Your task to perform on an android device: change your default location settings in chrome Image 0: 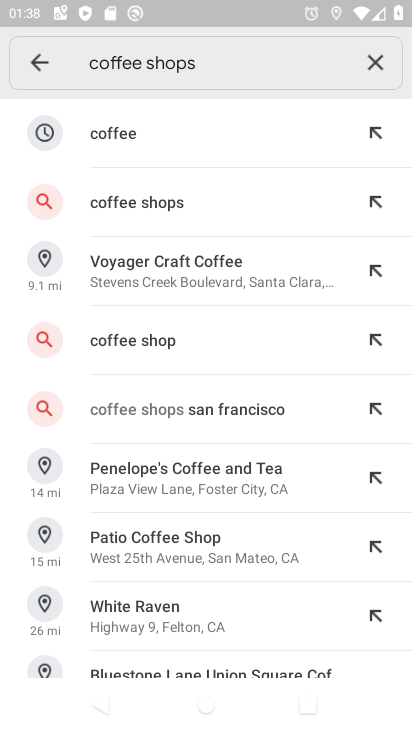
Step 0: press home button
Your task to perform on an android device: change your default location settings in chrome Image 1: 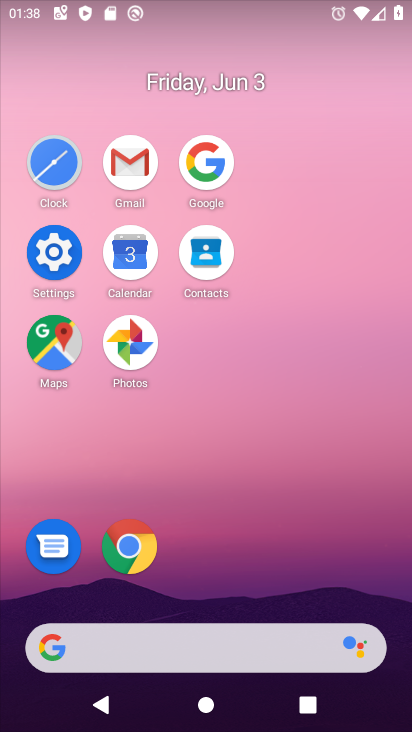
Step 1: click (126, 531)
Your task to perform on an android device: change your default location settings in chrome Image 2: 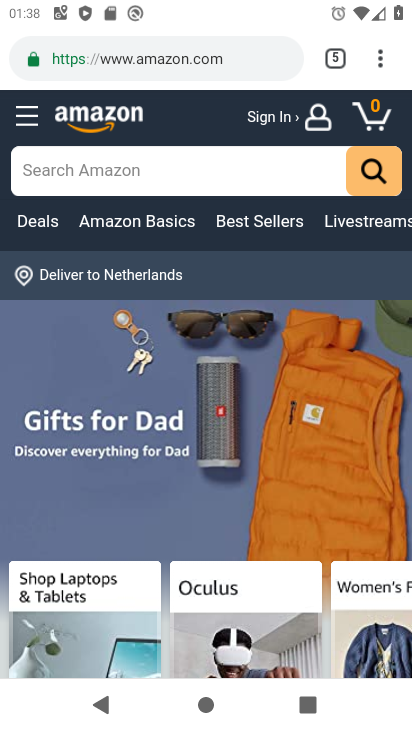
Step 2: click (386, 65)
Your task to perform on an android device: change your default location settings in chrome Image 3: 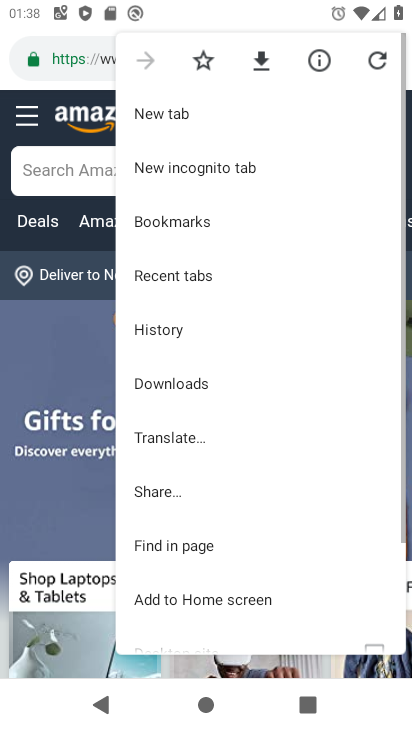
Step 3: drag from (209, 436) to (256, 91)
Your task to perform on an android device: change your default location settings in chrome Image 4: 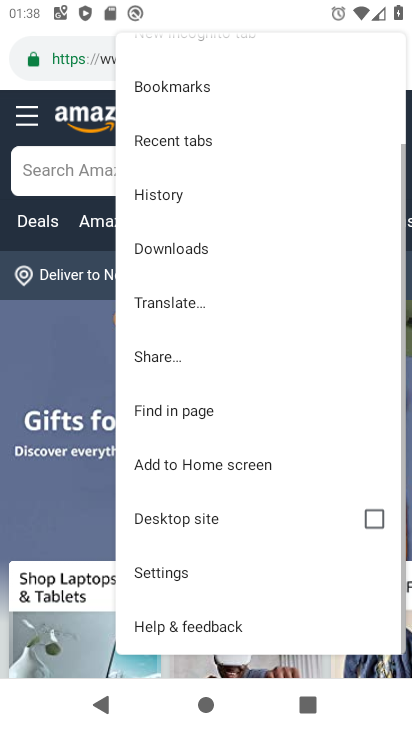
Step 4: click (184, 561)
Your task to perform on an android device: change your default location settings in chrome Image 5: 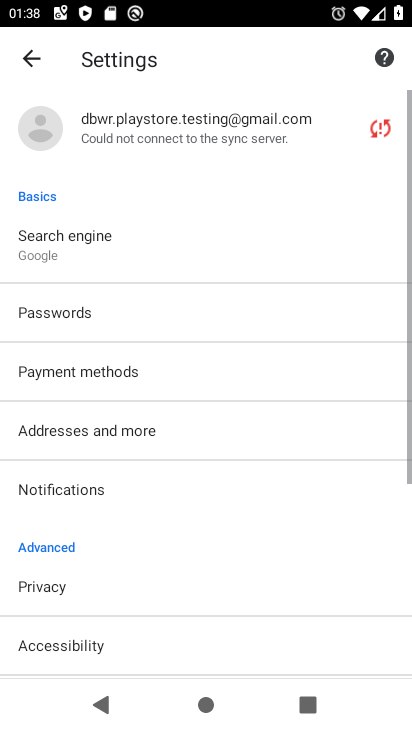
Step 5: drag from (185, 561) to (253, 156)
Your task to perform on an android device: change your default location settings in chrome Image 6: 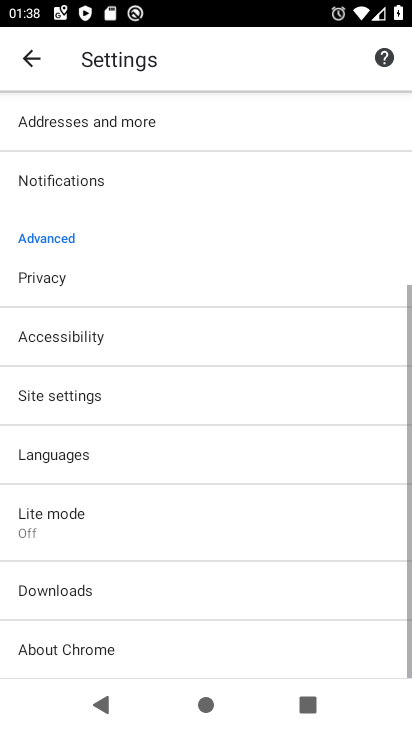
Step 6: drag from (118, 618) to (179, 222)
Your task to perform on an android device: change your default location settings in chrome Image 7: 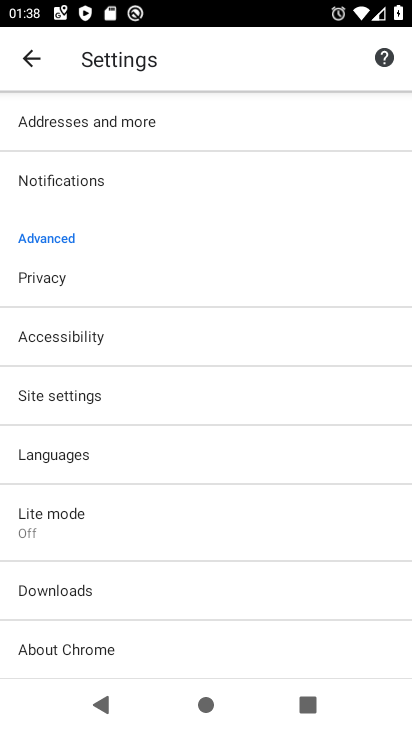
Step 7: click (131, 395)
Your task to perform on an android device: change your default location settings in chrome Image 8: 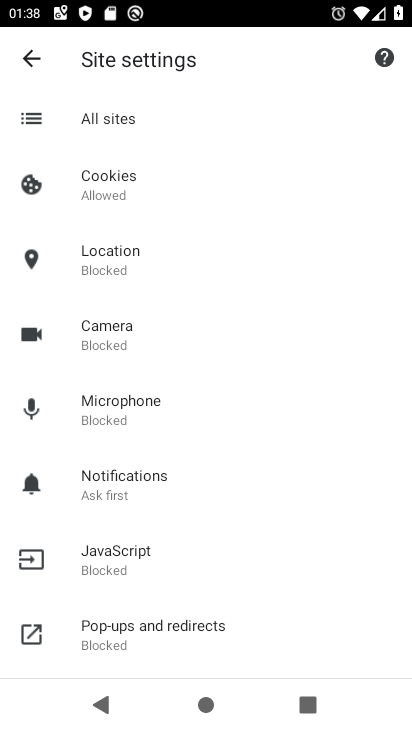
Step 8: click (200, 277)
Your task to perform on an android device: change your default location settings in chrome Image 9: 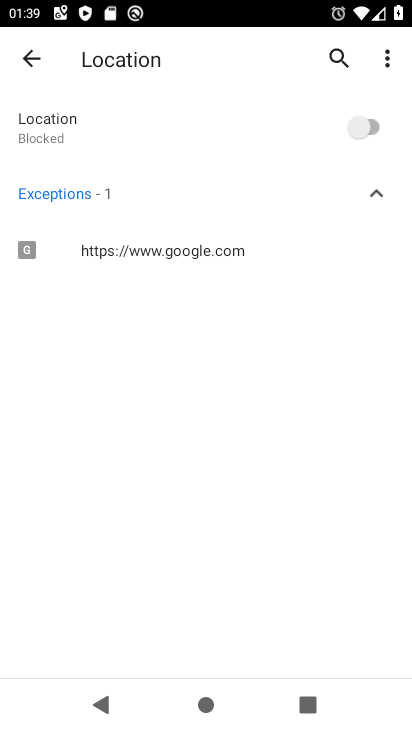
Step 9: click (354, 130)
Your task to perform on an android device: change your default location settings in chrome Image 10: 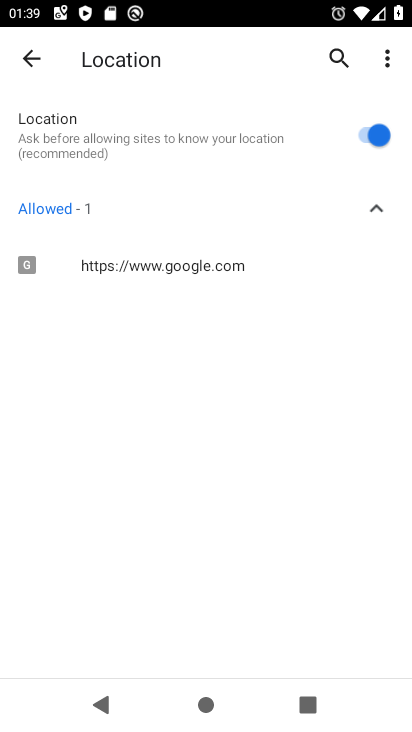
Step 10: task complete